Your task to perform on an android device: uninstall "Nova Launcher" Image 0: 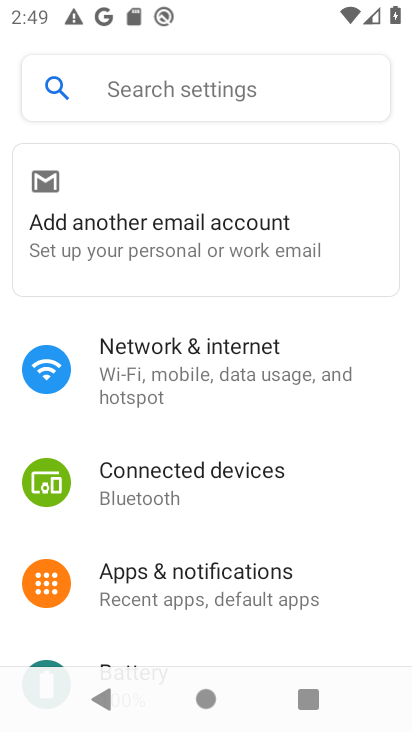
Step 0: press home button
Your task to perform on an android device: uninstall "Nova Launcher" Image 1: 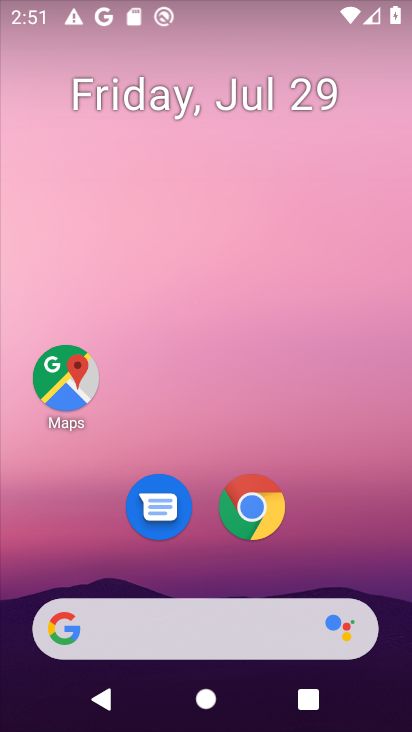
Step 1: click (170, 643)
Your task to perform on an android device: uninstall "Nova Launcher" Image 2: 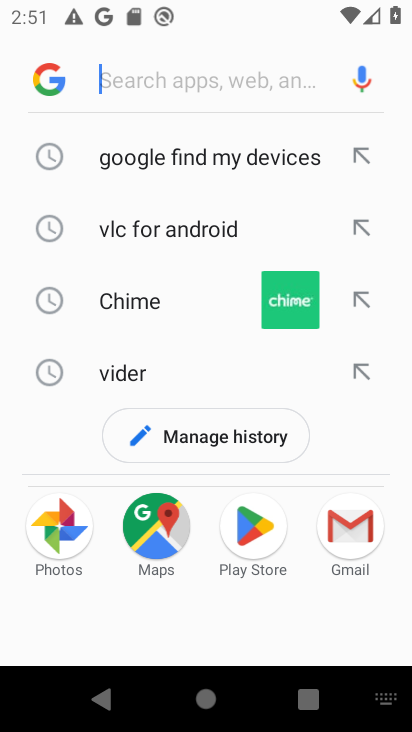
Step 2: type "nova launcher"
Your task to perform on an android device: uninstall "Nova Launcher" Image 3: 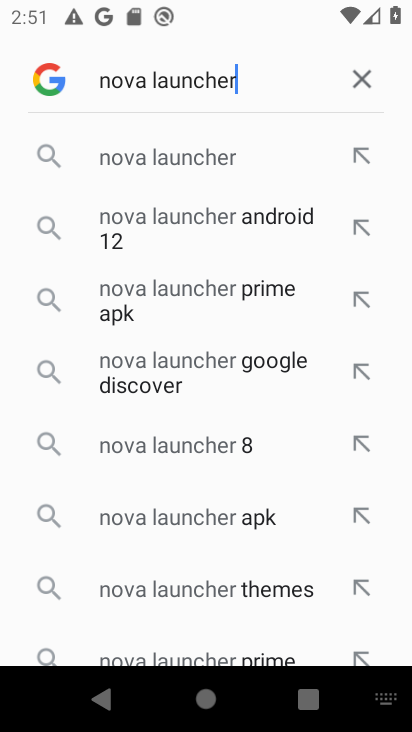
Step 3: click (122, 149)
Your task to perform on an android device: uninstall "Nova Launcher" Image 4: 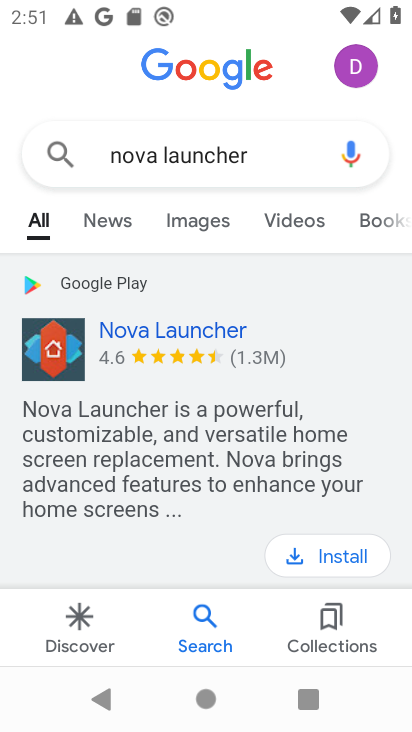
Step 4: task complete